Your task to perform on an android device: Open eBay Image 0: 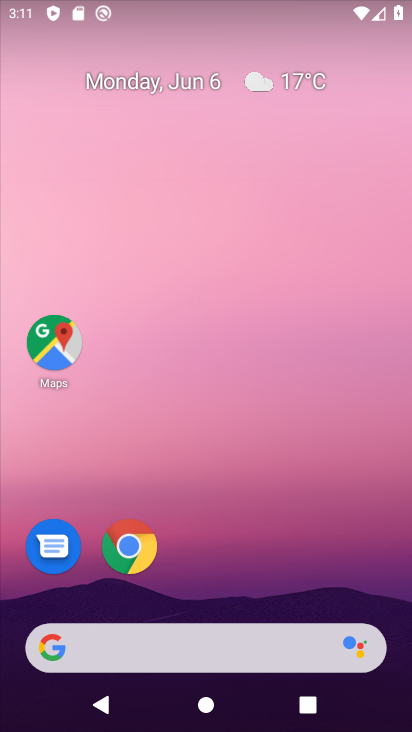
Step 0: drag from (272, 531) to (213, 55)
Your task to perform on an android device: Open eBay Image 1: 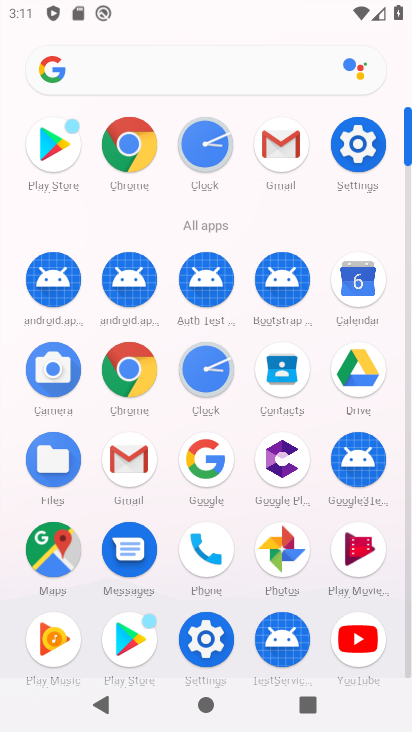
Step 1: click (134, 144)
Your task to perform on an android device: Open eBay Image 2: 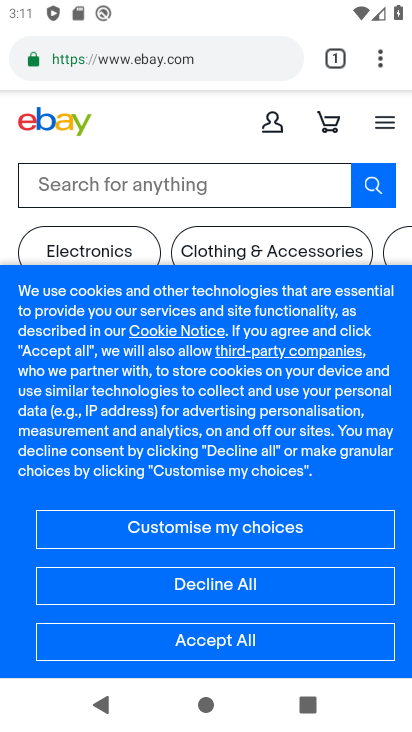
Step 2: task complete